Your task to perform on an android device: turn off notifications settings in the gmail app Image 0: 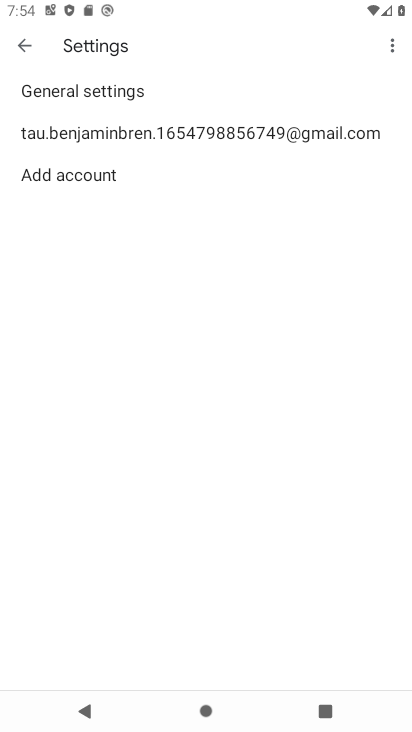
Step 0: press home button
Your task to perform on an android device: turn off notifications settings in the gmail app Image 1: 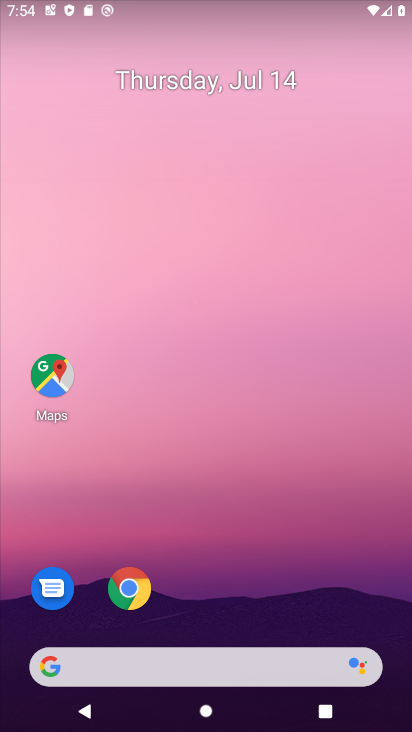
Step 1: drag from (340, 606) to (300, 42)
Your task to perform on an android device: turn off notifications settings in the gmail app Image 2: 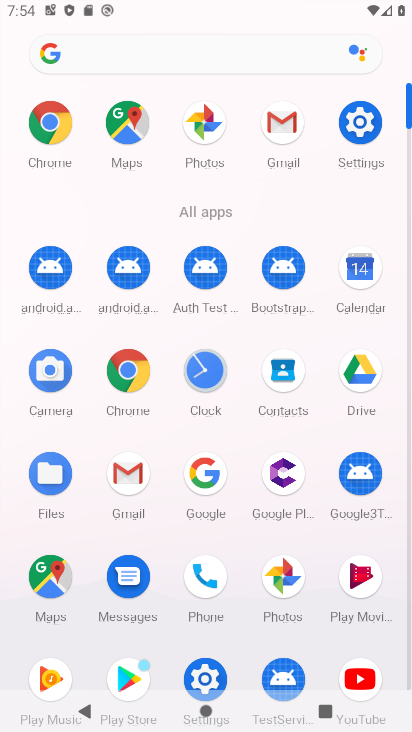
Step 2: click (285, 118)
Your task to perform on an android device: turn off notifications settings in the gmail app Image 3: 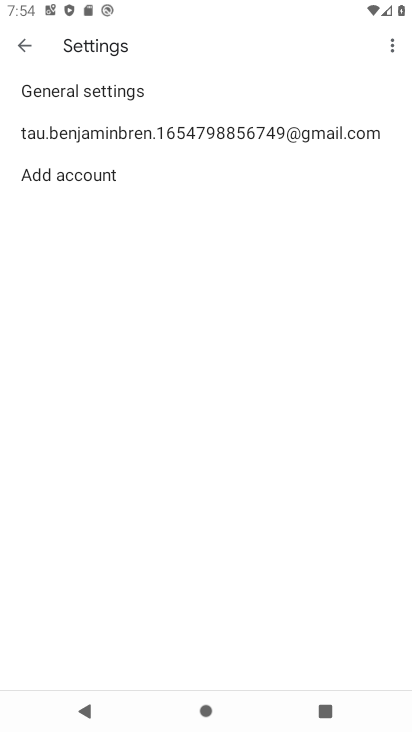
Step 3: click (68, 132)
Your task to perform on an android device: turn off notifications settings in the gmail app Image 4: 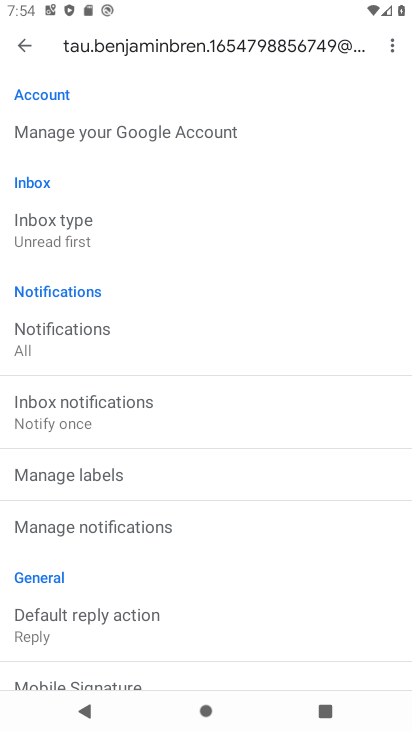
Step 4: click (119, 539)
Your task to perform on an android device: turn off notifications settings in the gmail app Image 5: 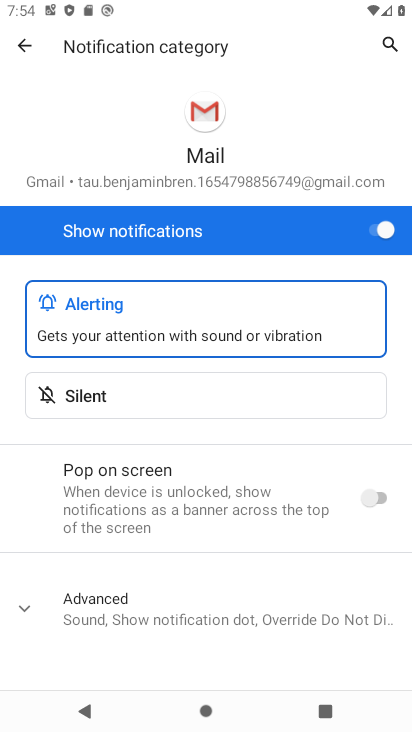
Step 5: click (381, 225)
Your task to perform on an android device: turn off notifications settings in the gmail app Image 6: 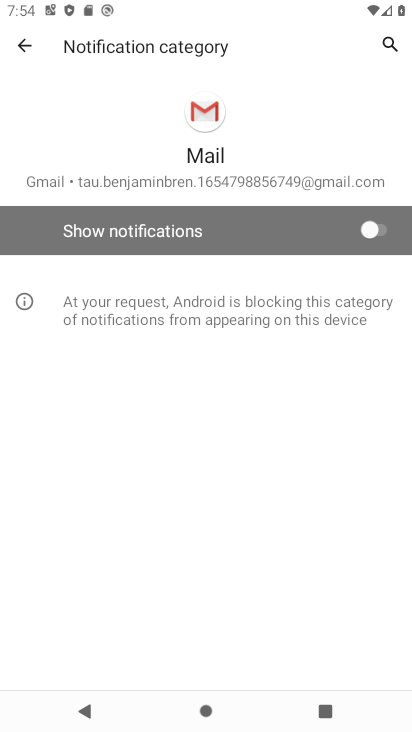
Step 6: task complete